Your task to perform on an android device: Go to Yahoo.com Image 0: 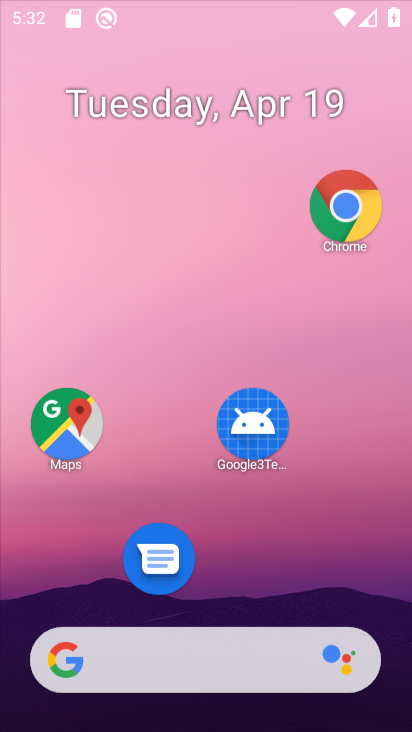
Step 0: click (361, 121)
Your task to perform on an android device: Go to Yahoo.com Image 1: 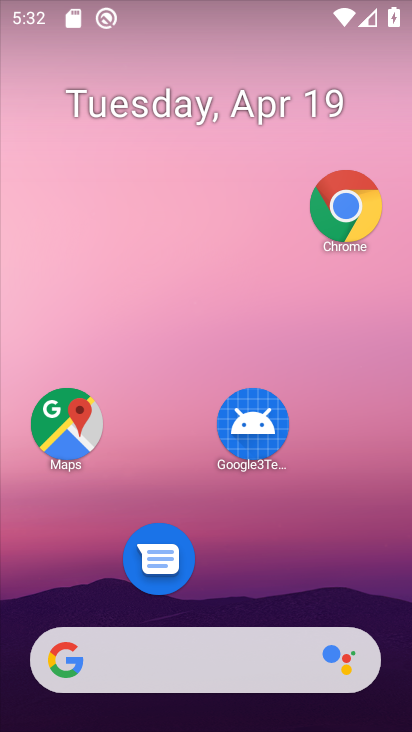
Step 1: drag from (232, 662) to (252, 227)
Your task to perform on an android device: Go to Yahoo.com Image 2: 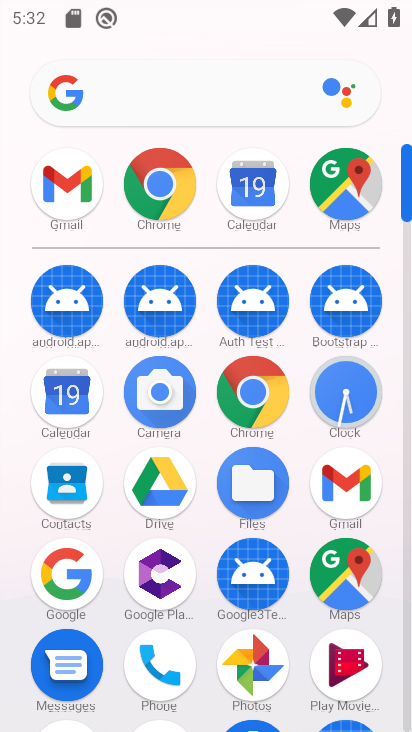
Step 2: click (252, 414)
Your task to perform on an android device: Go to Yahoo.com Image 3: 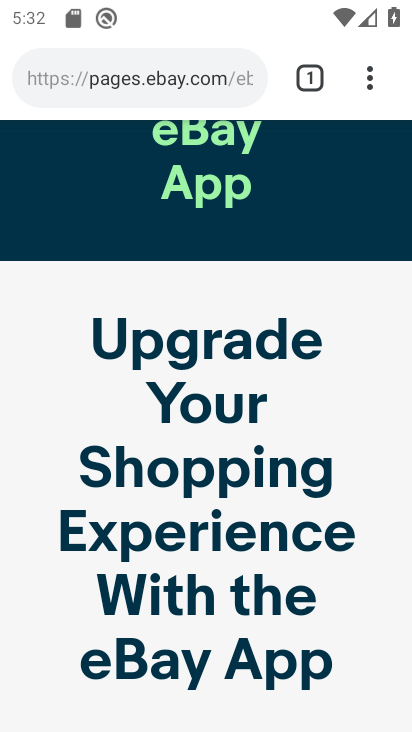
Step 3: press back button
Your task to perform on an android device: Go to Yahoo.com Image 4: 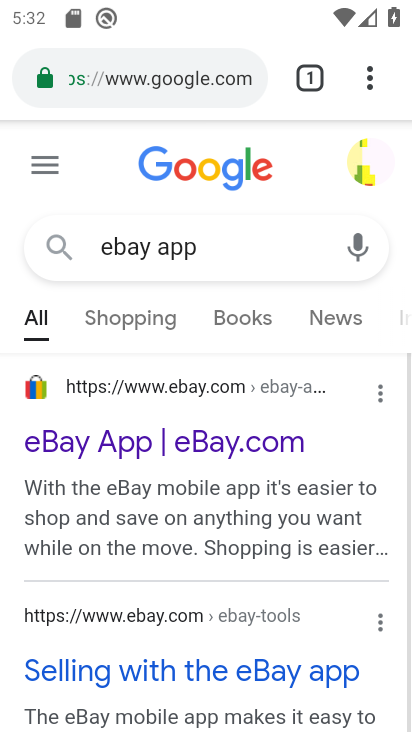
Step 4: click (145, 86)
Your task to perform on an android device: Go to Yahoo.com Image 5: 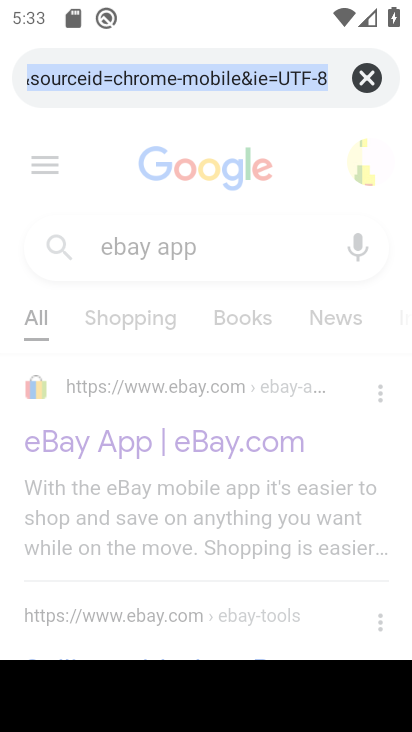
Step 5: type "yahoo.com"
Your task to perform on an android device: Go to Yahoo.com Image 6: 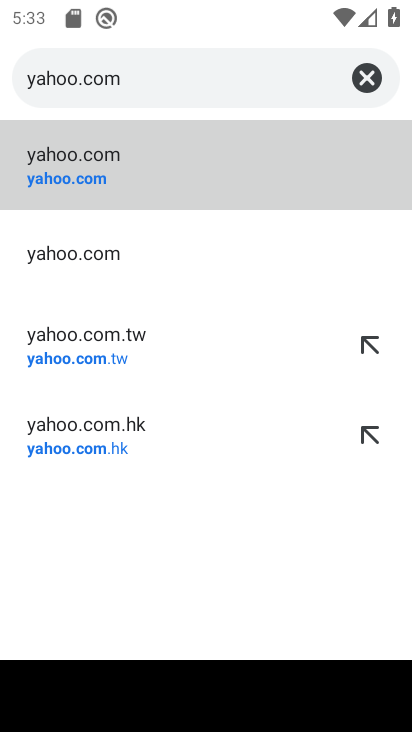
Step 6: click (125, 181)
Your task to perform on an android device: Go to Yahoo.com Image 7: 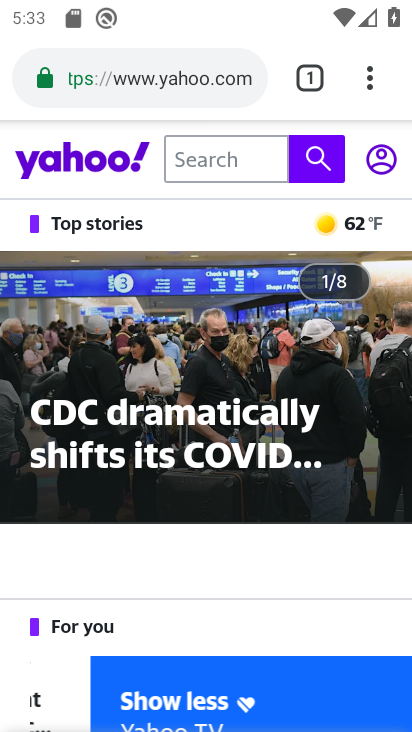
Step 7: drag from (201, 553) to (232, 409)
Your task to perform on an android device: Go to Yahoo.com Image 8: 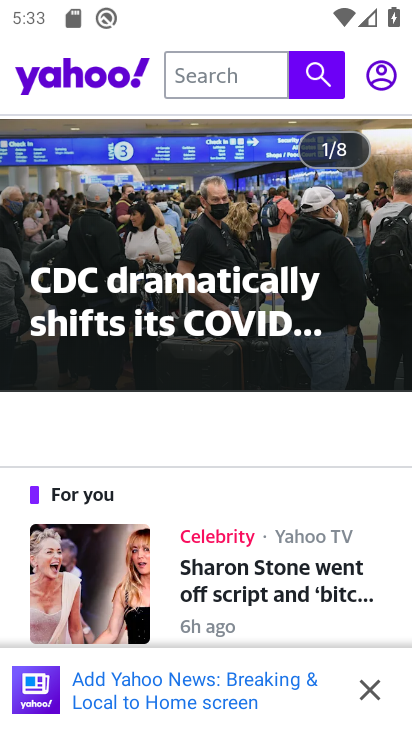
Step 8: click (379, 695)
Your task to perform on an android device: Go to Yahoo.com Image 9: 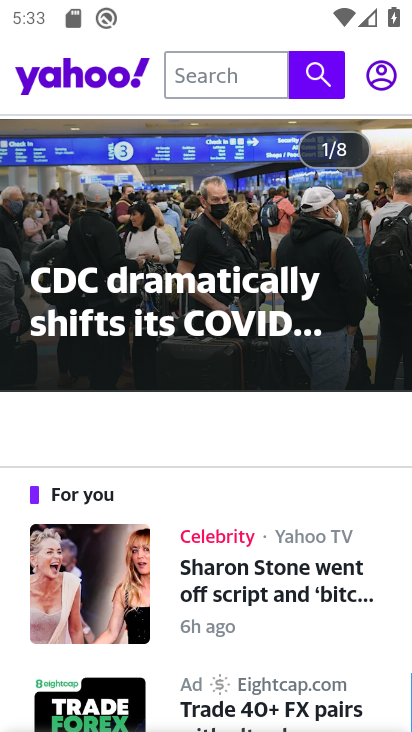
Step 9: task complete